Your task to perform on an android device: turn on improve location accuracy Image 0: 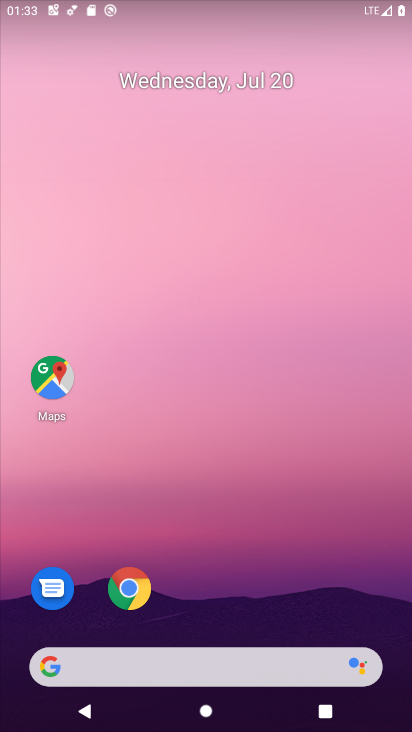
Step 0: drag from (260, 565) to (255, 238)
Your task to perform on an android device: turn on improve location accuracy Image 1: 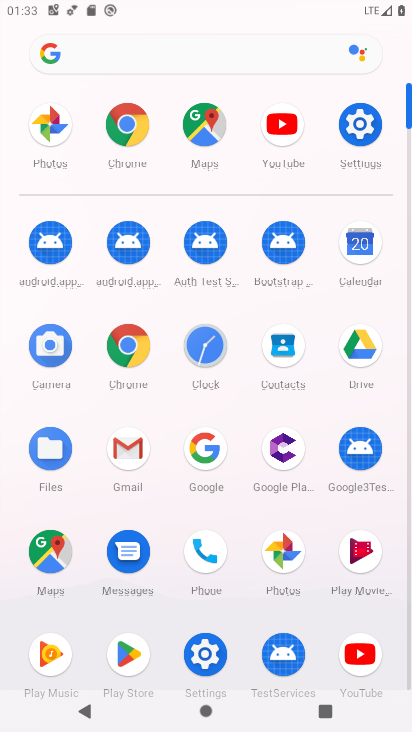
Step 1: click (368, 126)
Your task to perform on an android device: turn on improve location accuracy Image 2: 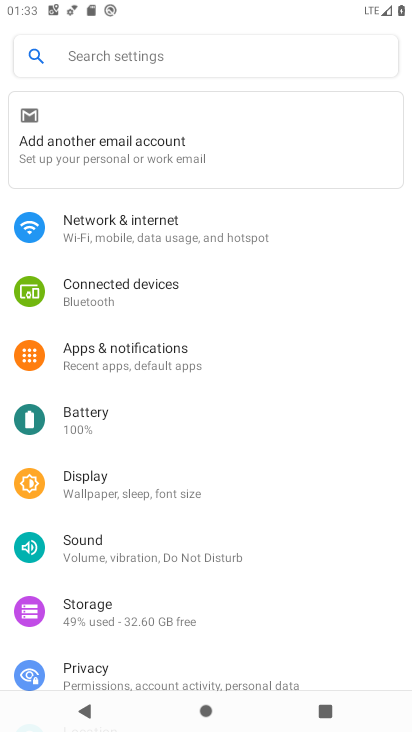
Step 2: drag from (176, 581) to (194, 351)
Your task to perform on an android device: turn on improve location accuracy Image 3: 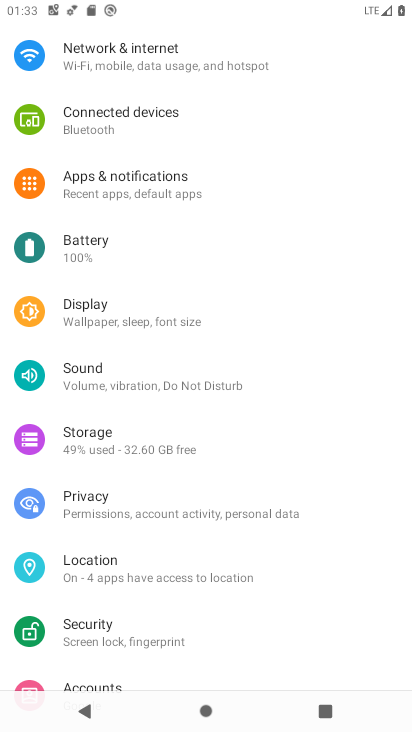
Step 3: click (132, 574)
Your task to perform on an android device: turn on improve location accuracy Image 4: 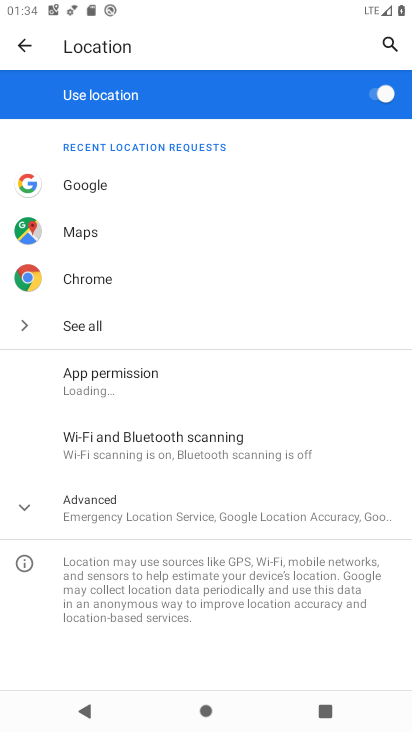
Step 4: click (212, 508)
Your task to perform on an android device: turn on improve location accuracy Image 5: 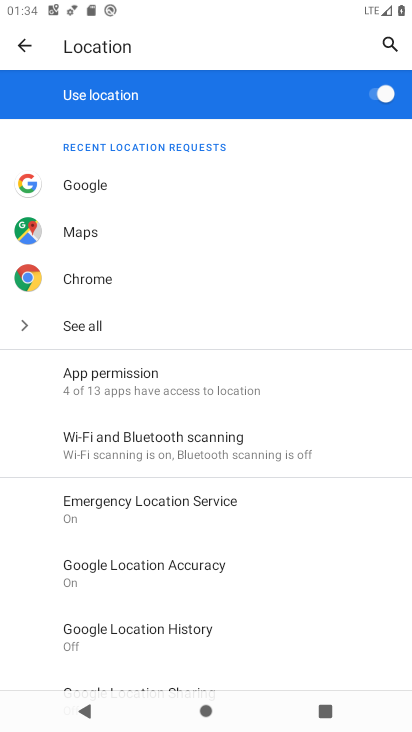
Step 5: click (170, 583)
Your task to perform on an android device: turn on improve location accuracy Image 6: 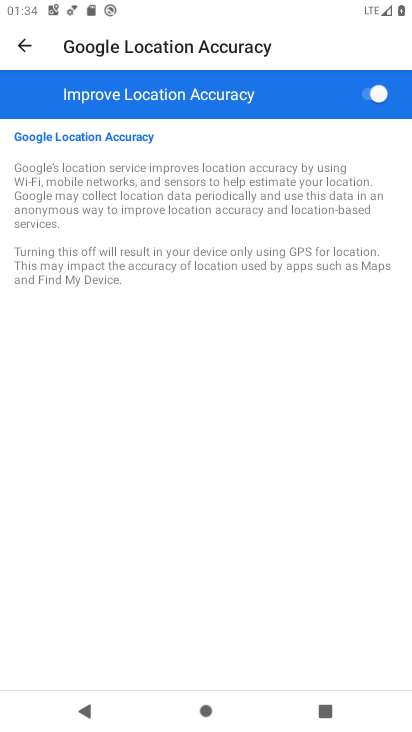
Step 6: task complete